Your task to perform on an android device: Clear all items from cart on target.com. Image 0: 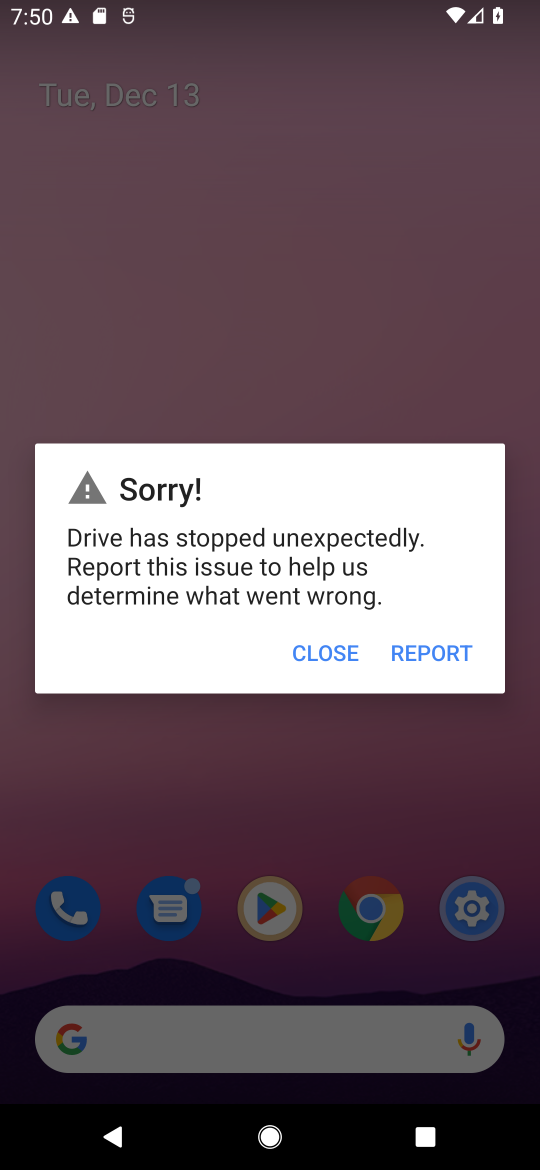
Step 0: press home button
Your task to perform on an android device: Clear all items from cart on target.com. Image 1: 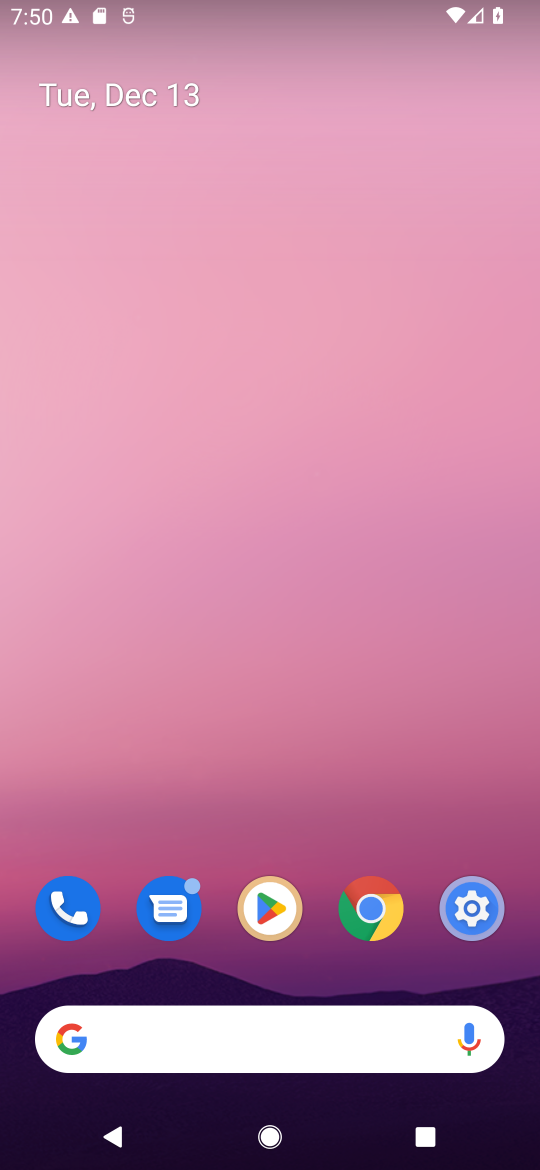
Step 1: click (122, 1036)
Your task to perform on an android device: Clear all items from cart on target.com. Image 2: 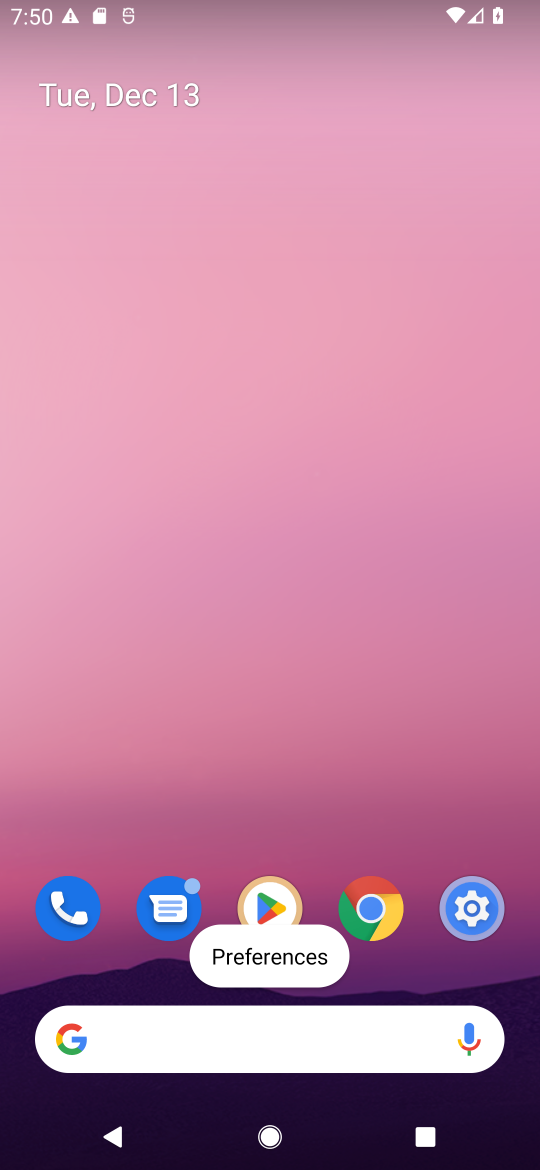
Step 2: click (111, 1041)
Your task to perform on an android device: Clear all items from cart on target.com. Image 3: 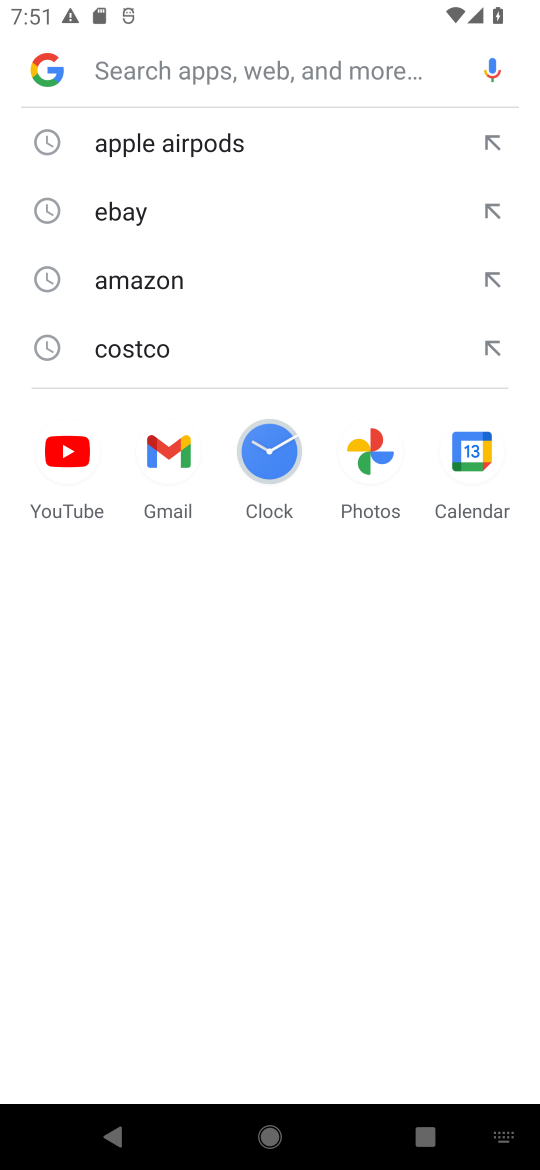
Step 3: type "target.com"
Your task to perform on an android device: Clear all items from cart on target.com. Image 4: 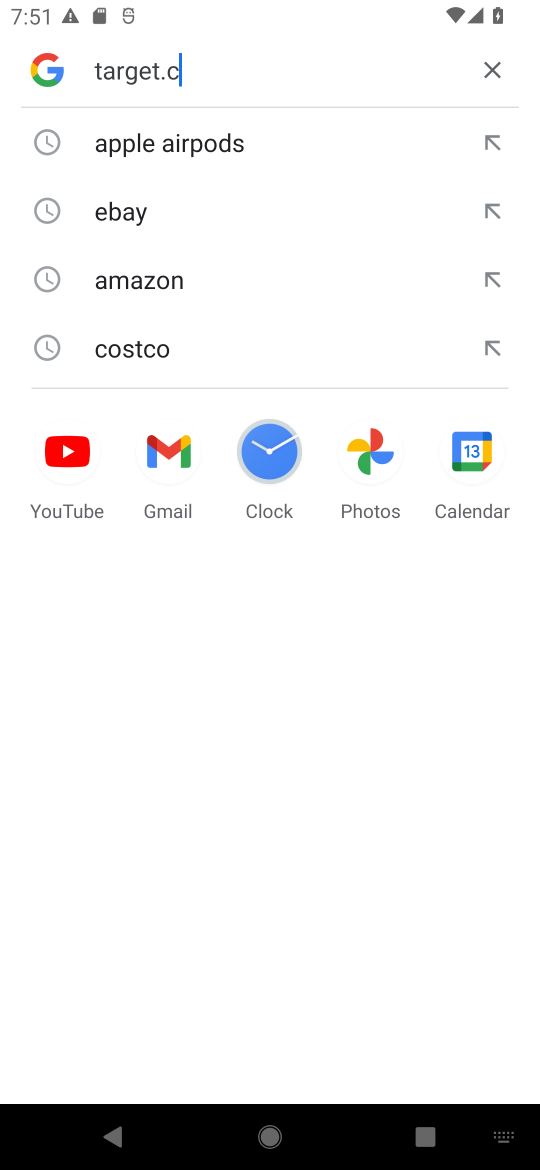
Step 4: press enter
Your task to perform on an android device: Clear all items from cart on target.com. Image 5: 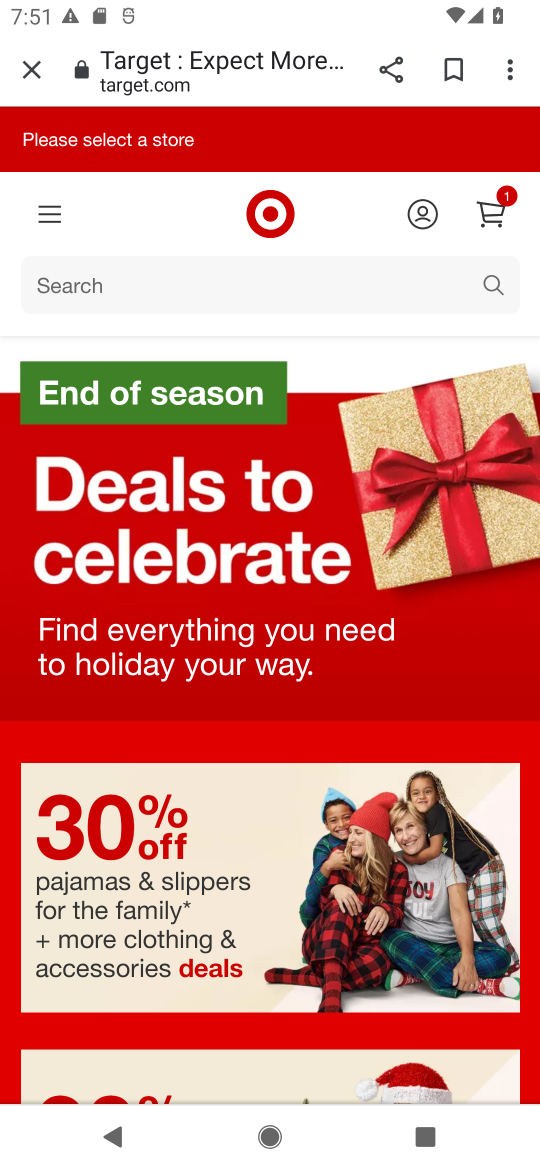
Step 5: click (488, 216)
Your task to perform on an android device: Clear all items from cart on target.com. Image 6: 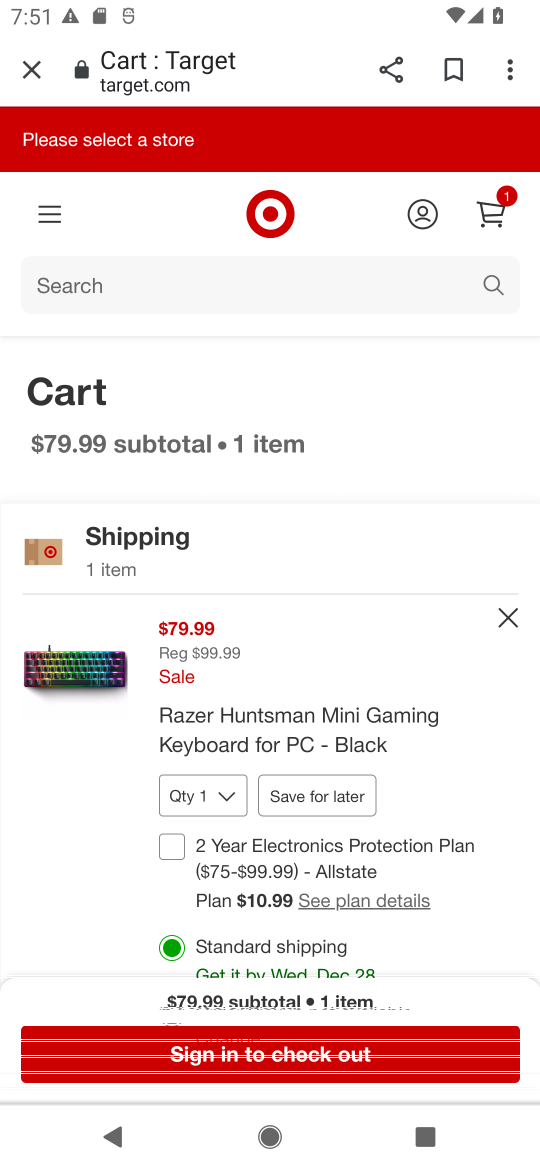
Step 6: click (505, 617)
Your task to perform on an android device: Clear all items from cart on target.com. Image 7: 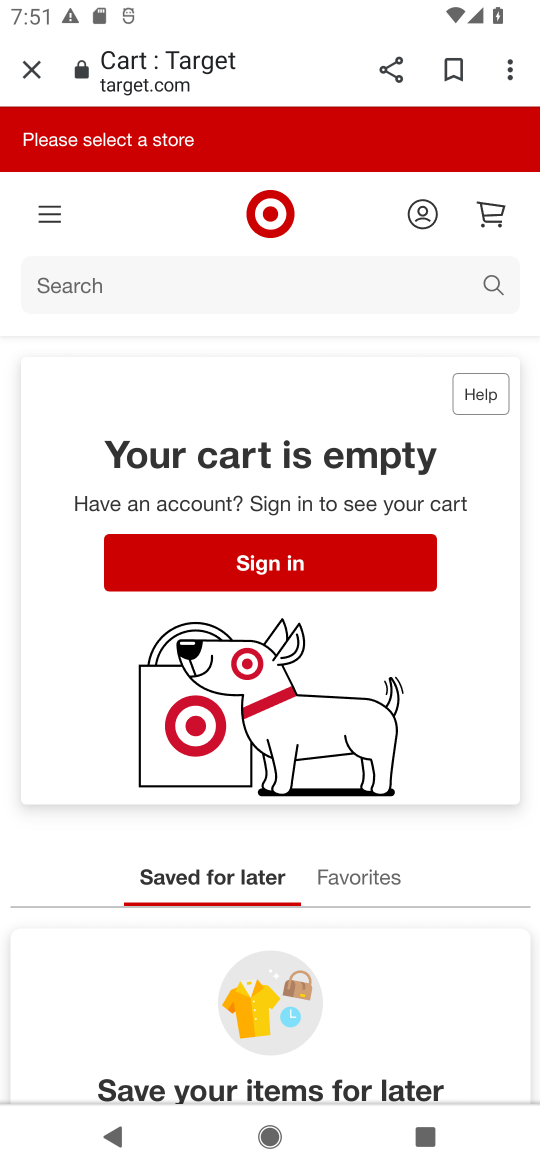
Step 7: task complete